Your task to perform on an android device: Open Youtube and go to "Your channel" Image 0: 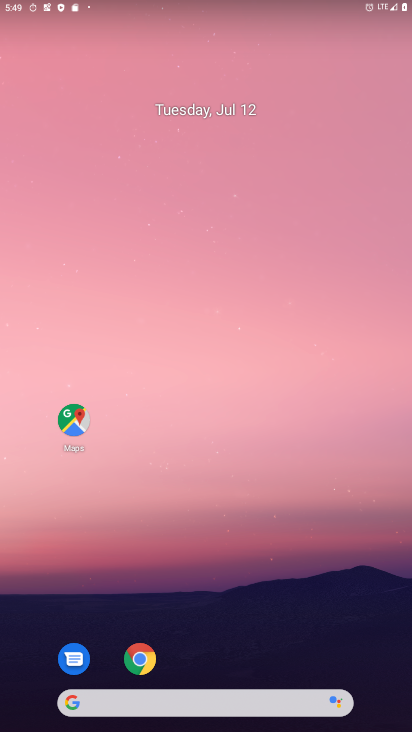
Step 0: drag from (191, 425) to (191, 104)
Your task to perform on an android device: Open Youtube and go to "Your channel" Image 1: 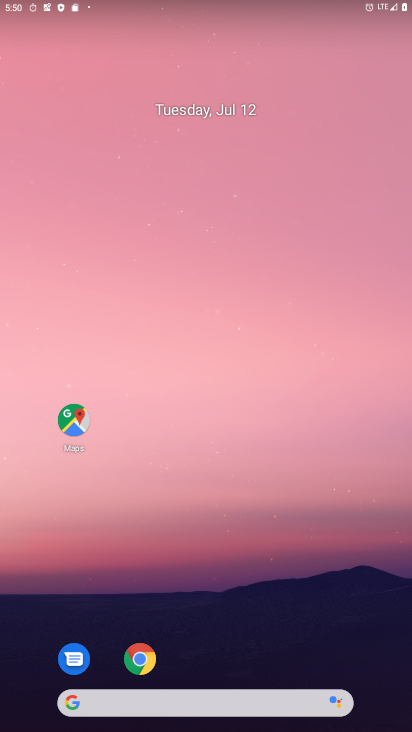
Step 1: drag from (207, 498) to (206, 134)
Your task to perform on an android device: Open Youtube and go to "Your channel" Image 2: 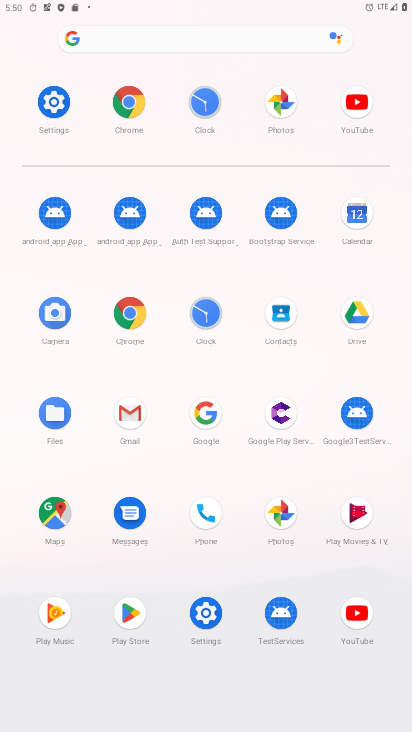
Step 2: click (347, 611)
Your task to perform on an android device: Open Youtube and go to "Your channel" Image 3: 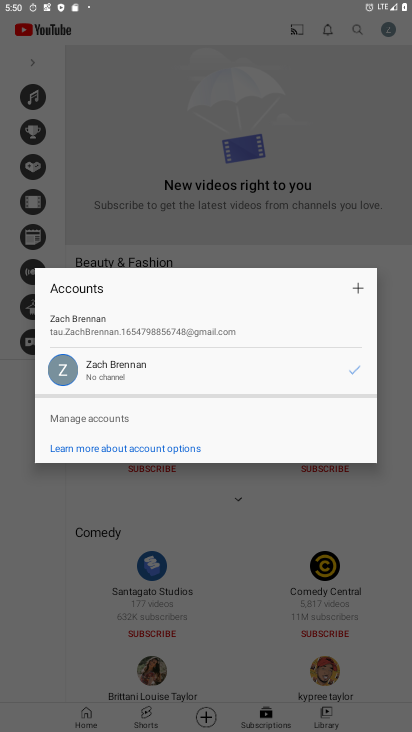
Step 3: task complete